Your task to perform on an android device: turn notification dots on Image 0: 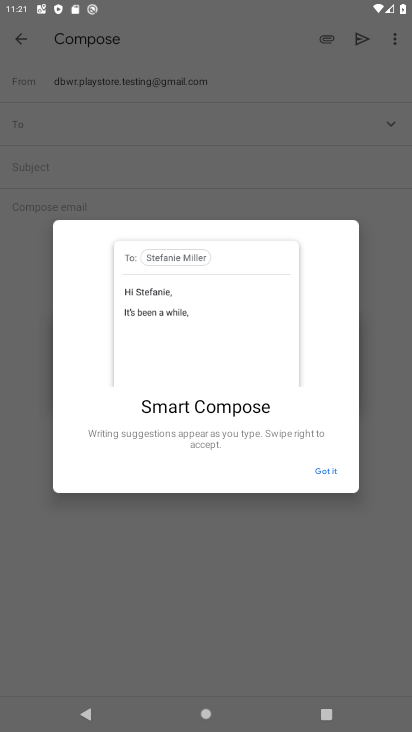
Step 0: press home button
Your task to perform on an android device: turn notification dots on Image 1: 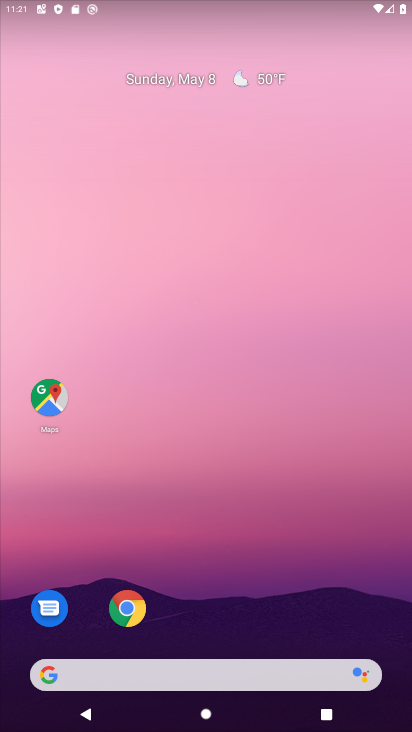
Step 1: drag from (300, 508) to (301, 169)
Your task to perform on an android device: turn notification dots on Image 2: 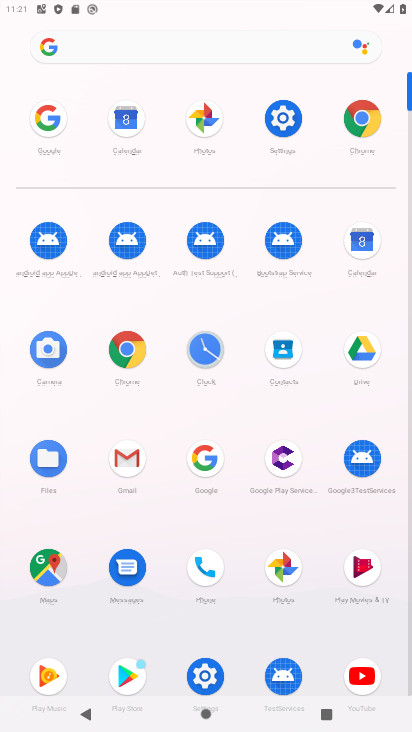
Step 2: click (271, 123)
Your task to perform on an android device: turn notification dots on Image 3: 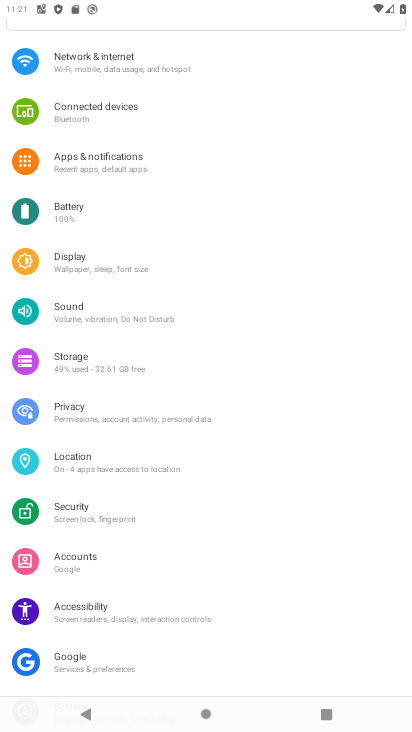
Step 3: drag from (166, 408) to (168, 197)
Your task to perform on an android device: turn notification dots on Image 4: 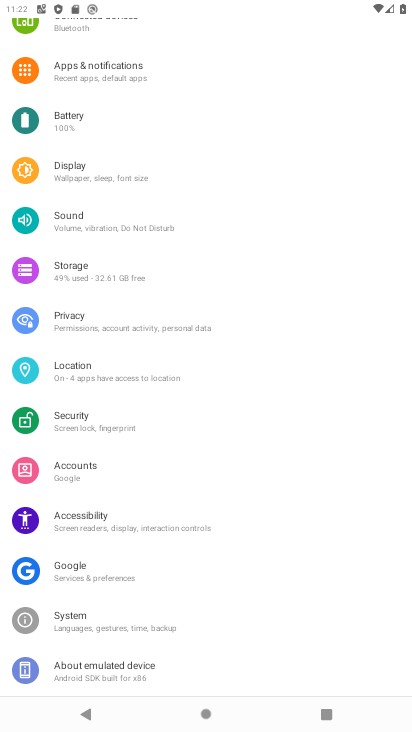
Step 4: drag from (185, 261) to (128, 560)
Your task to perform on an android device: turn notification dots on Image 5: 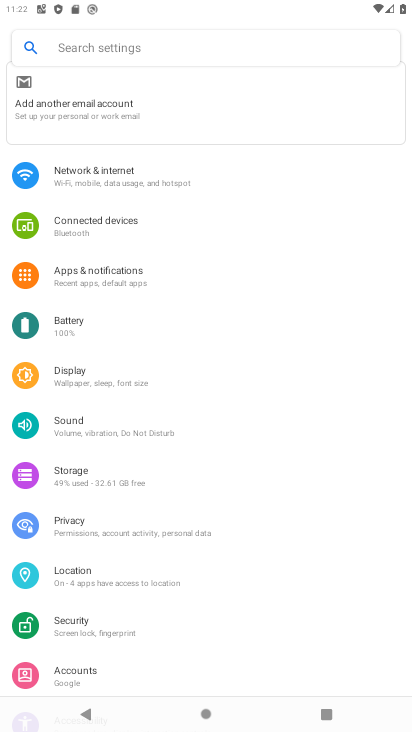
Step 5: click (114, 273)
Your task to perform on an android device: turn notification dots on Image 6: 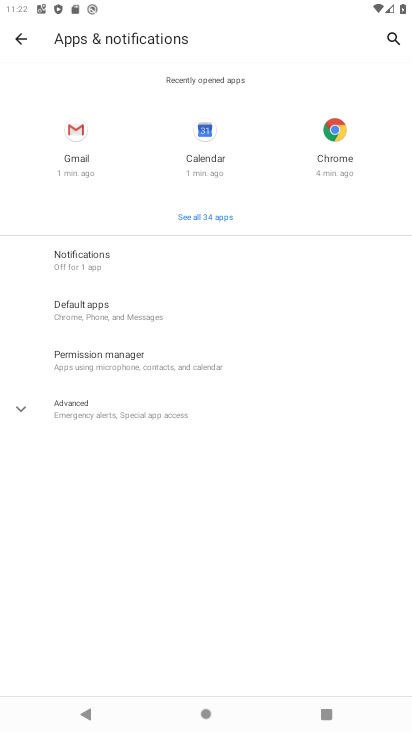
Step 6: click (86, 263)
Your task to perform on an android device: turn notification dots on Image 7: 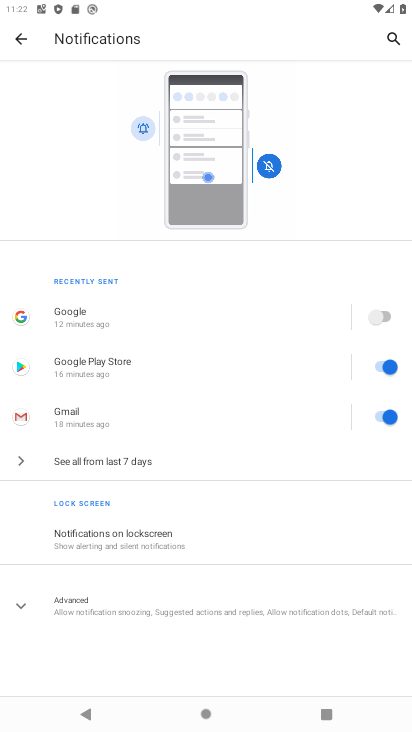
Step 7: drag from (192, 524) to (244, 193)
Your task to perform on an android device: turn notification dots on Image 8: 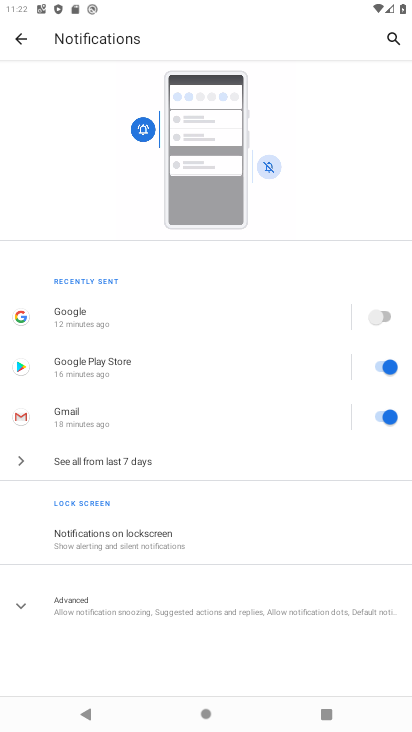
Step 8: click (127, 605)
Your task to perform on an android device: turn notification dots on Image 9: 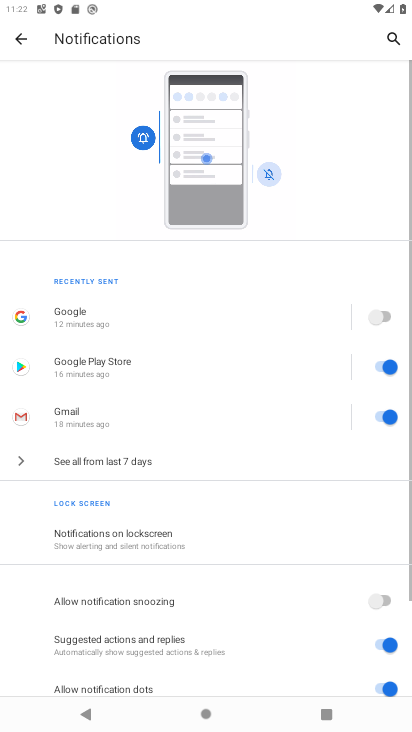
Step 9: task complete